Your task to perform on an android device: turn off translation in the chrome app Image 0: 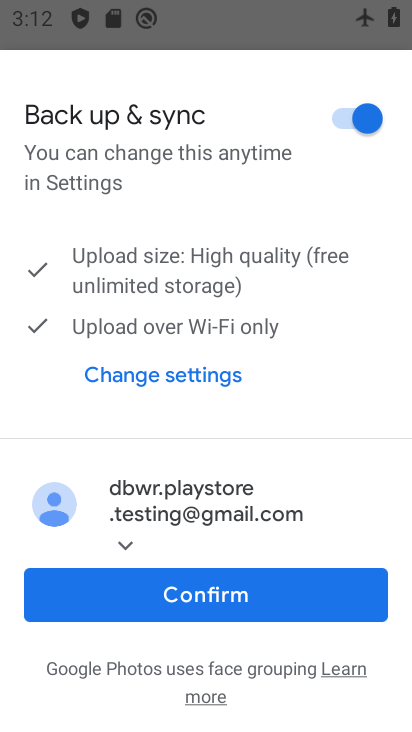
Step 0: press home button
Your task to perform on an android device: turn off translation in the chrome app Image 1: 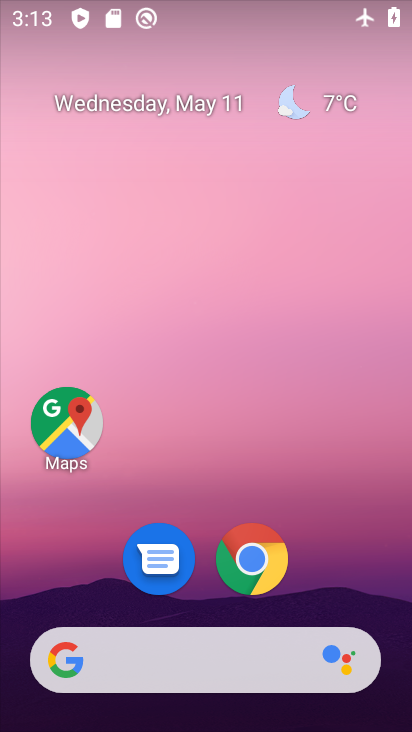
Step 1: drag from (208, 641) to (208, 248)
Your task to perform on an android device: turn off translation in the chrome app Image 2: 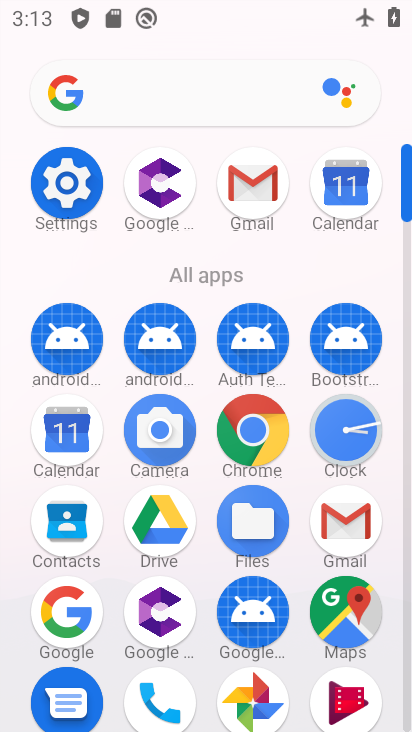
Step 2: click (266, 430)
Your task to perform on an android device: turn off translation in the chrome app Image 3: 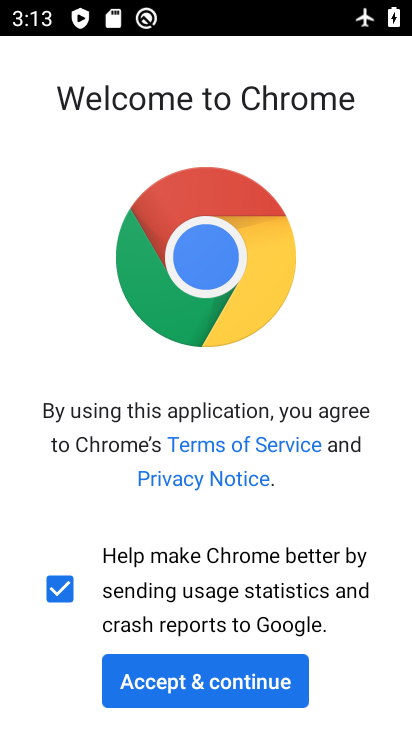
Step 3: click (174, 682)
Your task to perform on an android device: turn off translation in the chrome app Image 4: 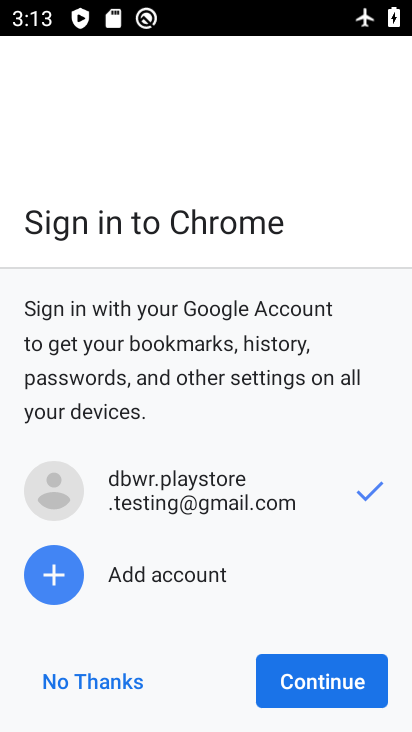
Step 4: click (271, 685)
Your task to perform on an android device: turn off translation in the chrome app Image 5: 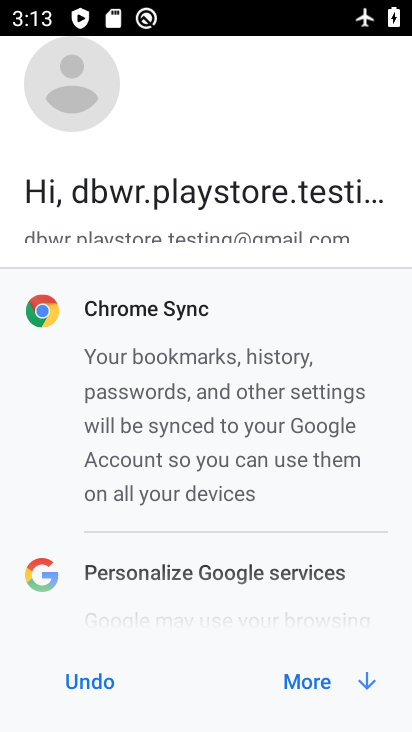
Step 5: click (286, 687)
Your task to perform on an android device: turn off translation in the chrome app Image 6: 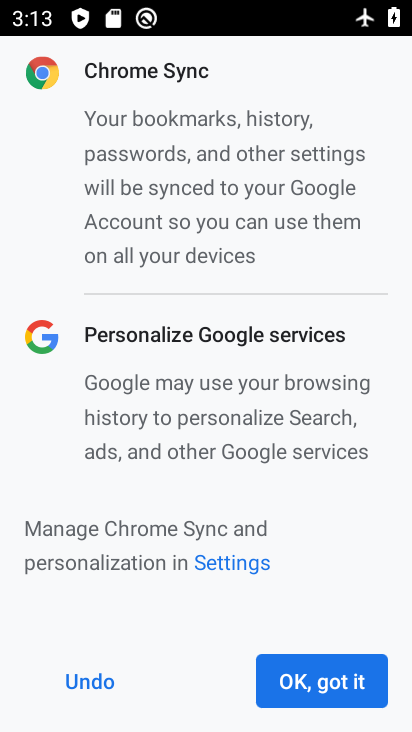
Step 6: click (286, 687)
Your task to perform on an android device: turn off translation in the chrome app Image 7: 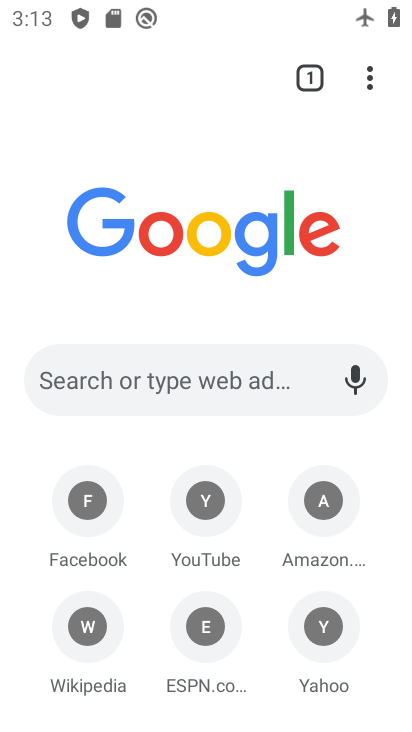
Step 7: click (372, 72)
Your task to perform on an android device: turn off translation in the chrome app Image 8: 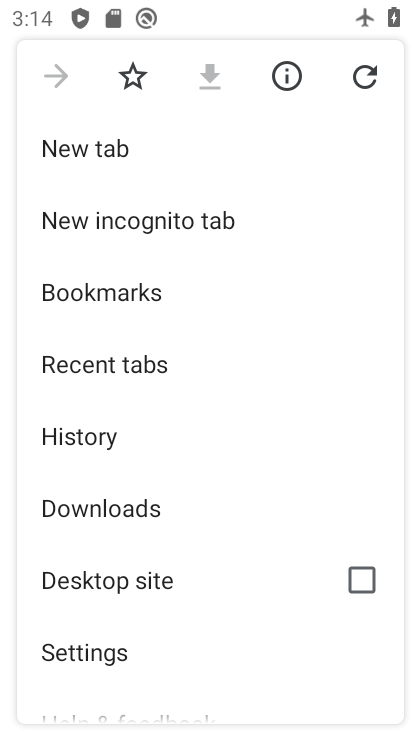
Step 8: click (105, 661)
Your task to perform on an android device: turn off translation in the chrome app Image 9: 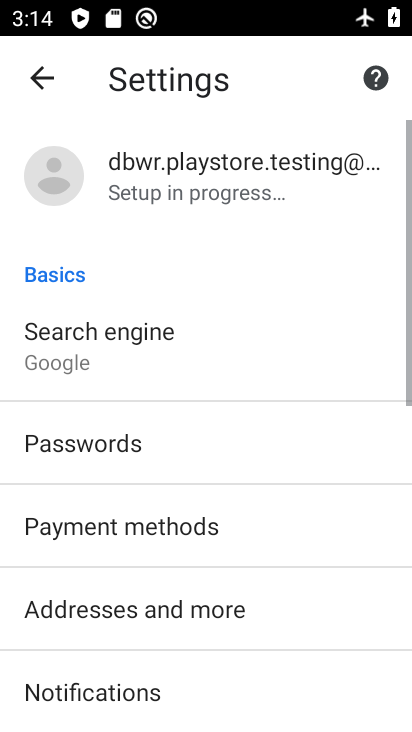
Step 9: drag from (165, 663) to (168, 125)
Your task to perform on an android device: turn off translation in the chrome app Image 10: 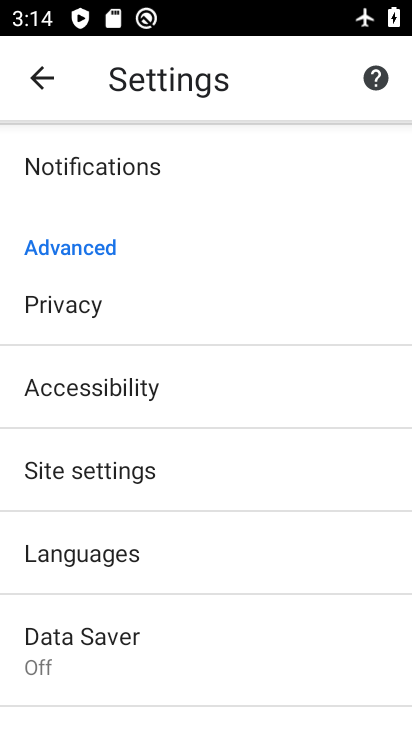
Step 10: click (76, 555)
Your task to perform on an android device: turn off translation in the chrome app Image 11: 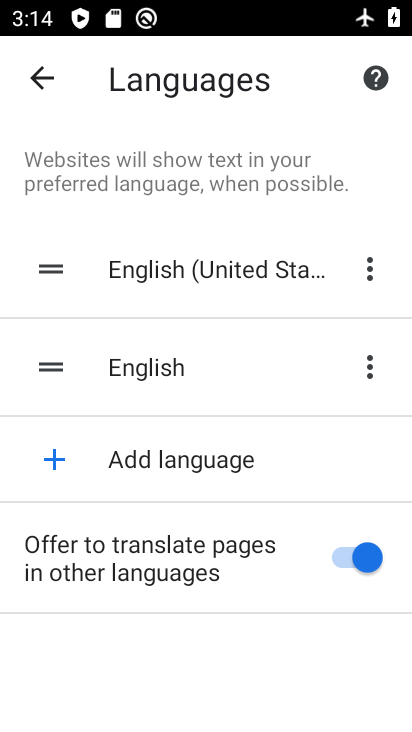
Step 11: click (340, 562)
Your task to perform on an android device: turn off translation in the chrome app Image 12: 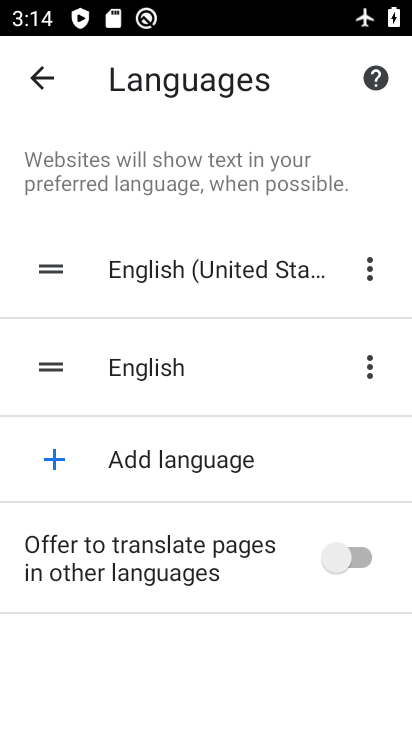
Step 12: task complete